Your task to perform on an android device: turn on location history Image 0: 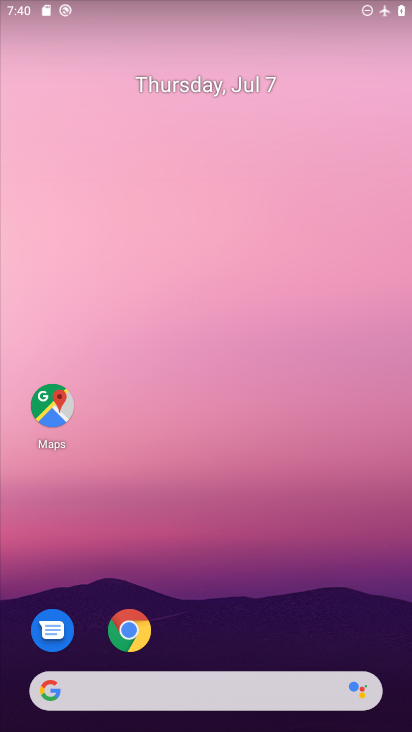
Step 0: click (46, 410)
Your task to perform on an android device: turn on location history Image 1: 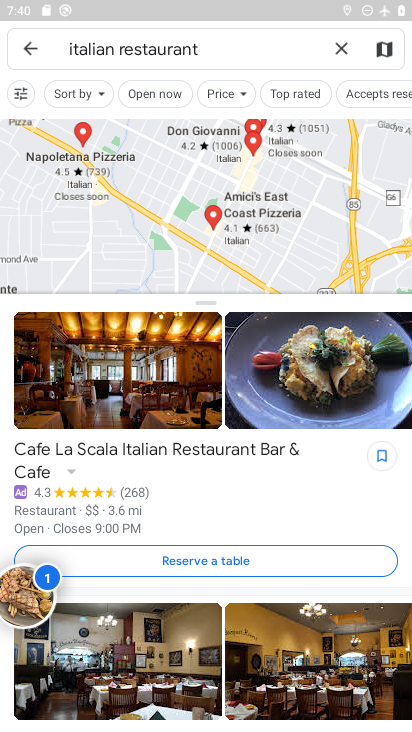
Step 1: click (26, 39)
Your task to perform on an android device: turn on location history Image 2: 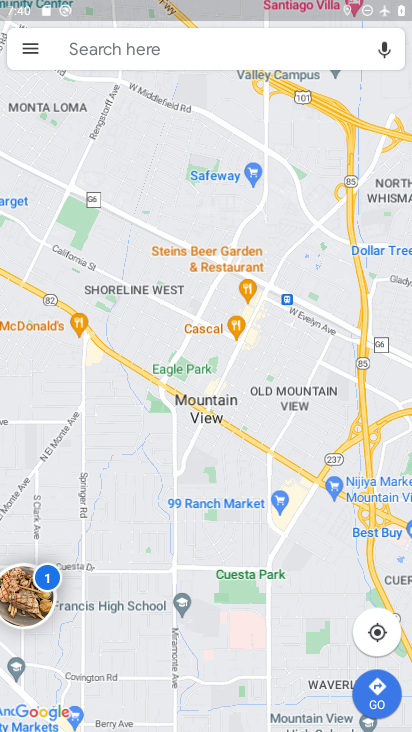
Step 2: click (27, 53)
Your task to perform on an android device: turn on location history Image 3: 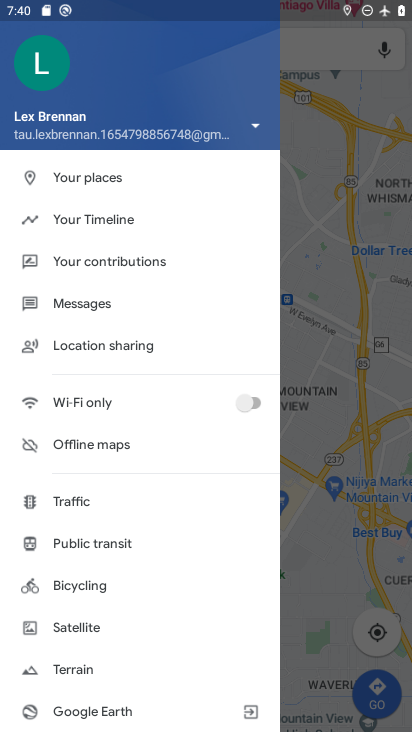
Step 3: click (82, 219)
Your task to perform on an android device: turn on location history Image 4: 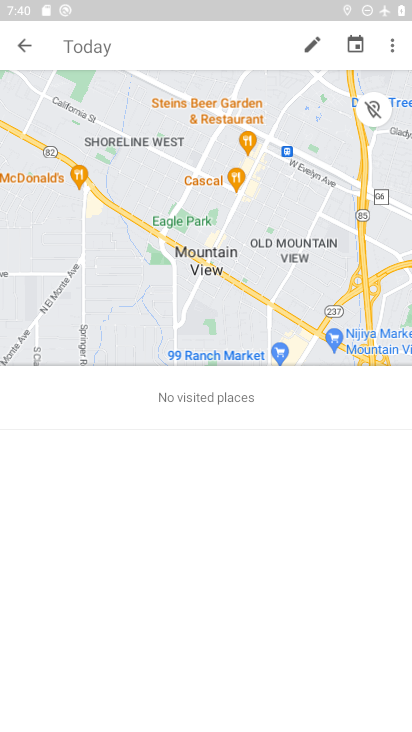
Step 4: click (392, 42)
Your task to perform on an android device: turn on location history Image 5: 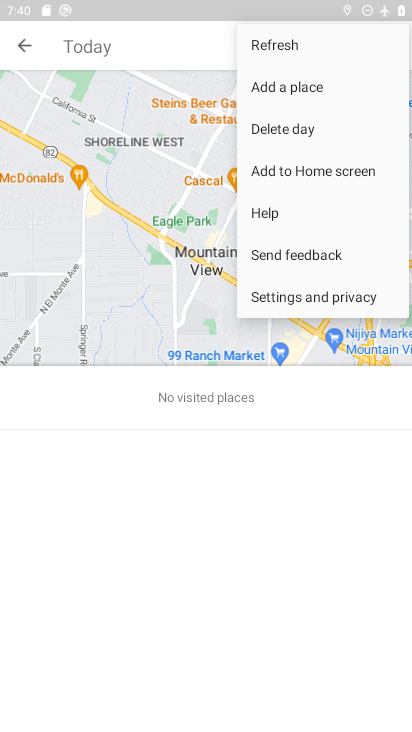
Step 5: click (308, 295)
Your task to perform on an android device: turn on location history Image 6: 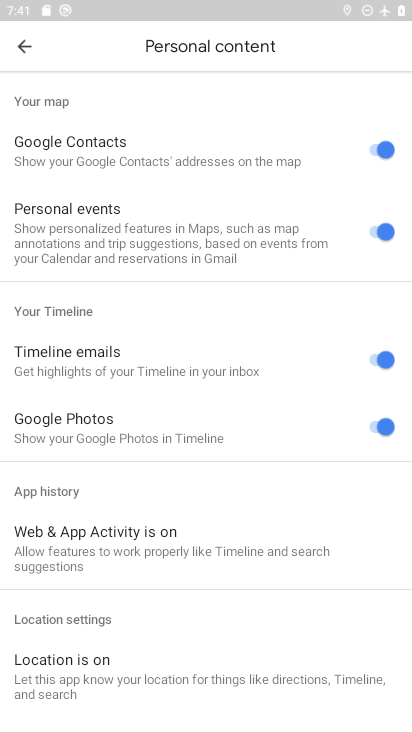
Step 6: drag from (207, 611) to (207, 359)
Your task to perform on an android device: turn on location history Image 7: 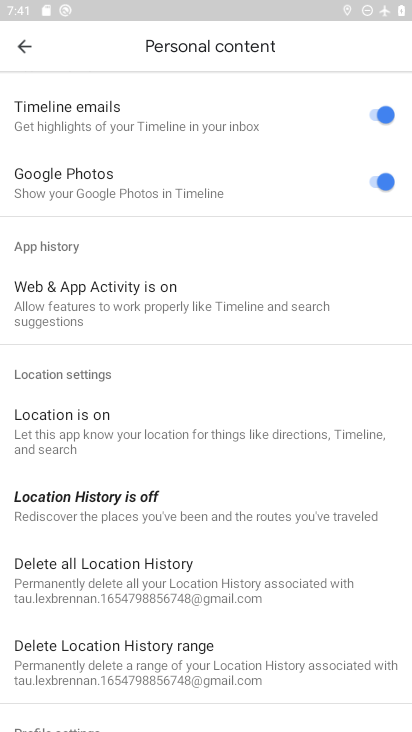
Step 7: click (109, 496)
Your task to perform on an android device: turn on location history Image 8: 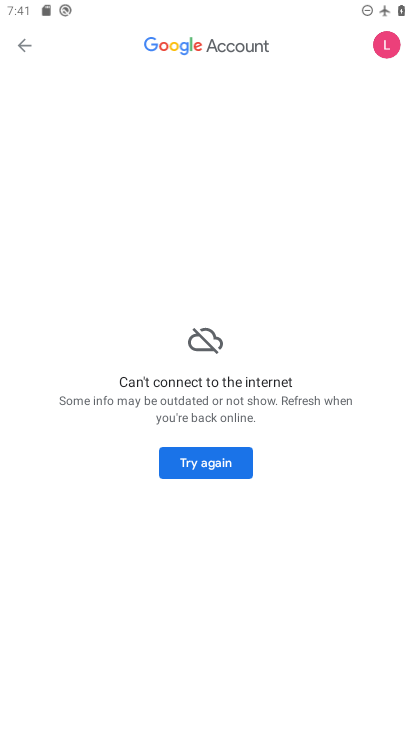
Step 8: task complete